Your task to perform on an android device: Open the web browser Image 0: 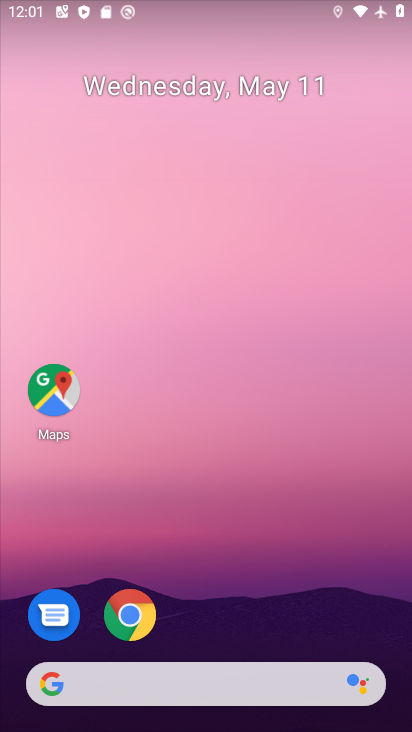
Step 0: drag from (284, 506) to (279, 4)
Your task to perform on an android device: Open the web browser Image 1: 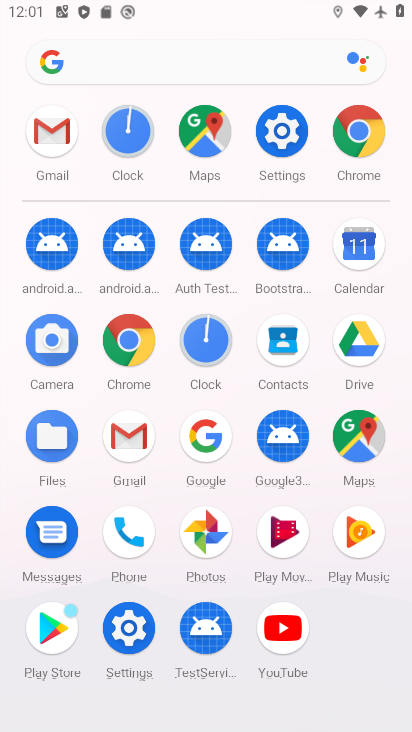
Step 1: click (358, 126)
Your task to perform on an android device: Open the web browser Image 2: 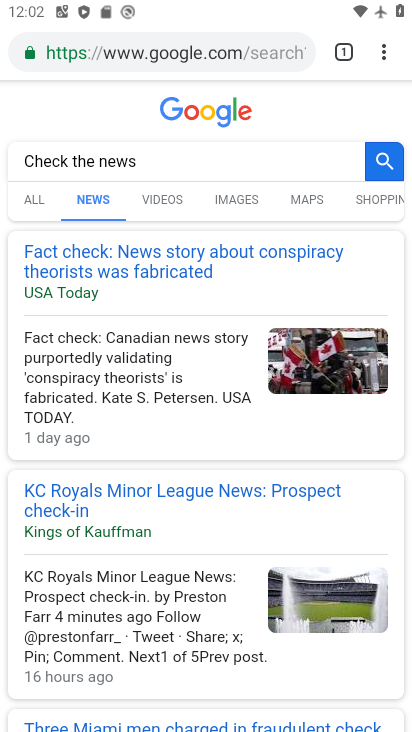
Step 2: task complete